Your task to perform on an android device: change the clock display to show seconds Image 0: 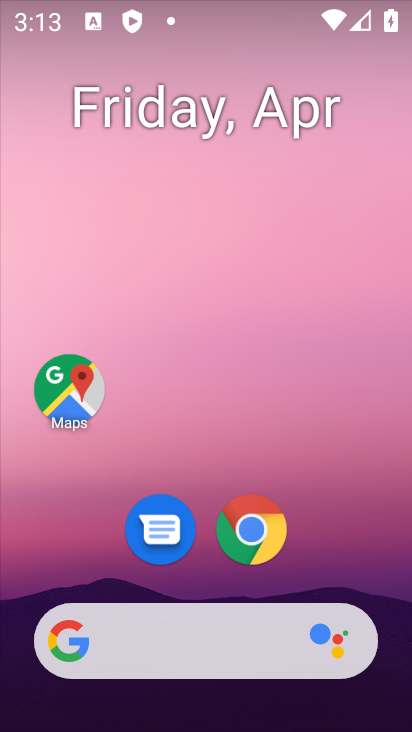
Step 0: drag from (246, 562) to (289, 125)
Your task to perform on an android device: change the clock display to show seconds Image 1: 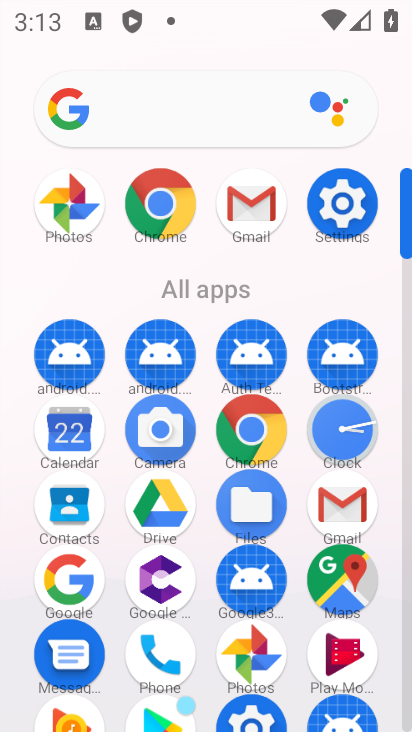
Step 1: click (348, 224)
Your task to perform on an android device: change the clock display to show seconds Image 2: 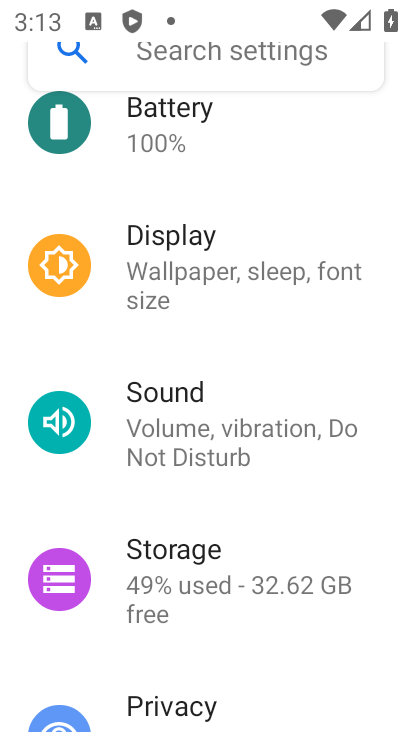
Step 2: press home button
Your task to perform on an android device: change the clock display to show seconds Image 3: 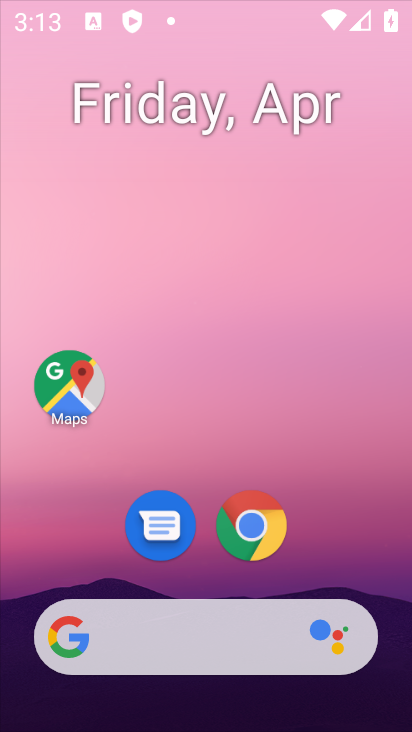
Step 3: press home button
Your task to perform on an android device: change the clock display to show seconds Image 4: 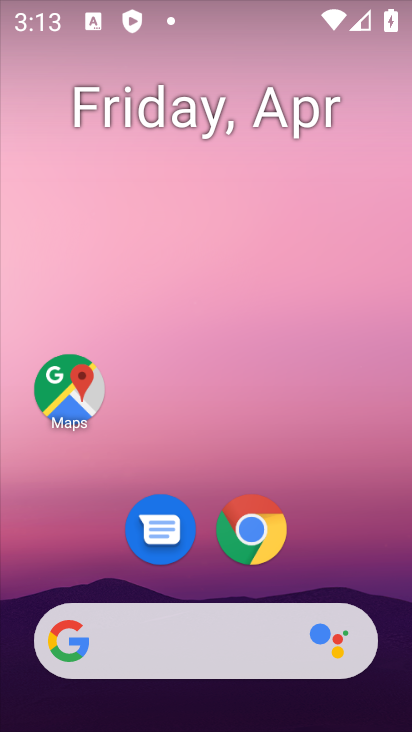
Step 4: drag from (303, 524) to (361, 207)
Your task to perform on an android device: change the clock display to show seconds Image 5: 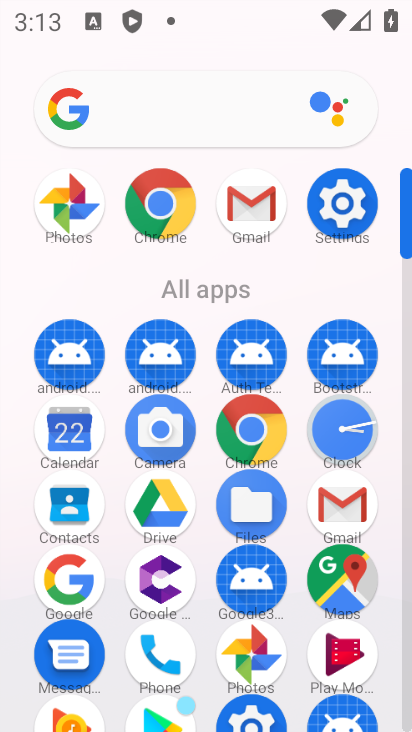
Step 5: click (358, 442)
Your task to perform on an android device: change the clock display to show seconds Image 6: 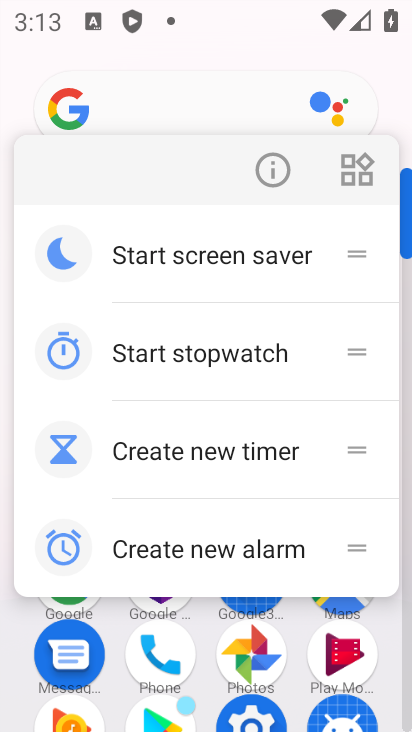
Step 6: click (386, 627)
Your task to perform on an android device: change the clock display to show seconds Image 7: 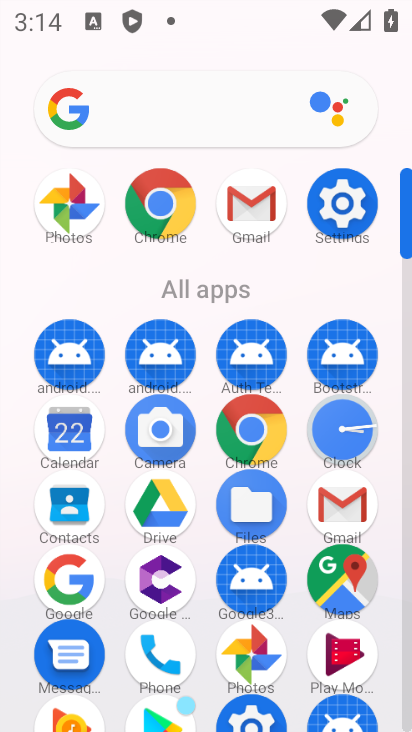
Step 7: click (347, 445)
Your task to perform on an android device: change the clock display to show seconds Image 8: 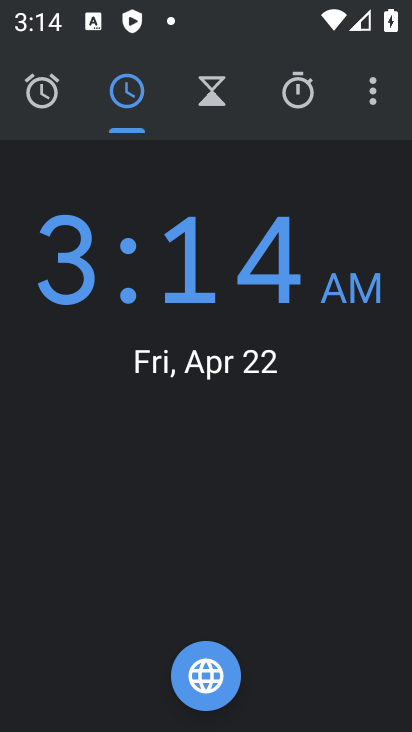
Step 8: click (376, 89)
Your task to perform on an android device: change the clock display to show seconds Image 9: 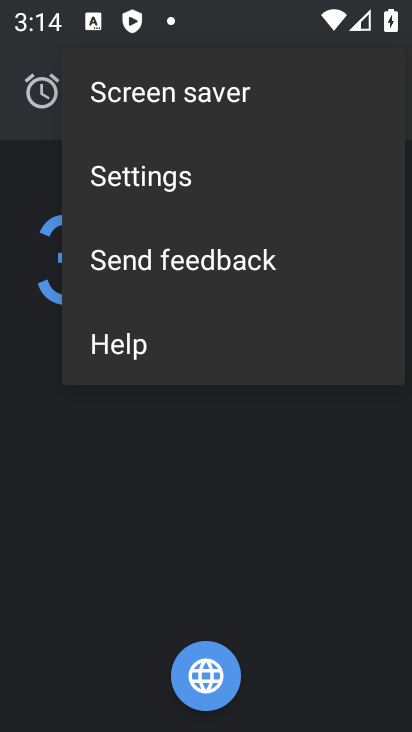
Step 9: click (211, 195)
Your task to perform on an android device: change the clock display to show seconds Image 10: 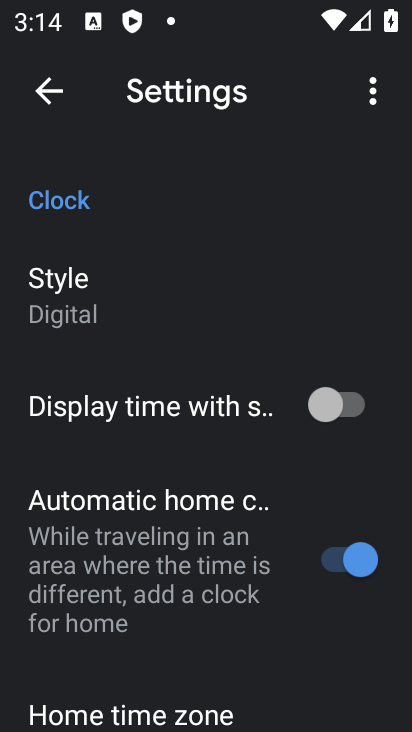
Step 10: drag from (232, 493) to (241, 438)
Your task to perform on an android device: change the clock display to show seconds Image 11: 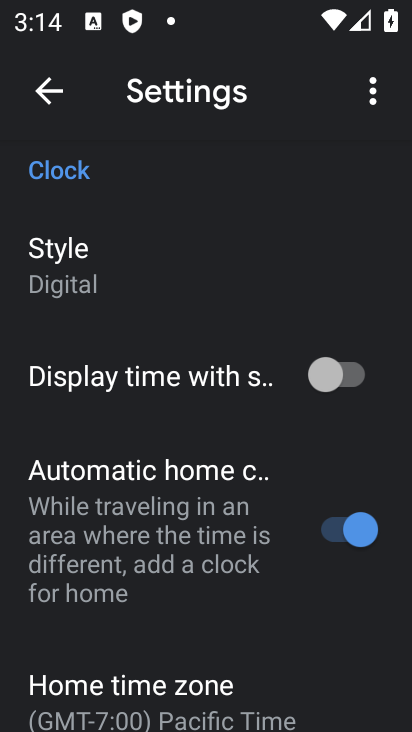
Step 11: click (330, 392)
Your task to perform on an android device: change the clock display to show seconds Image 12: 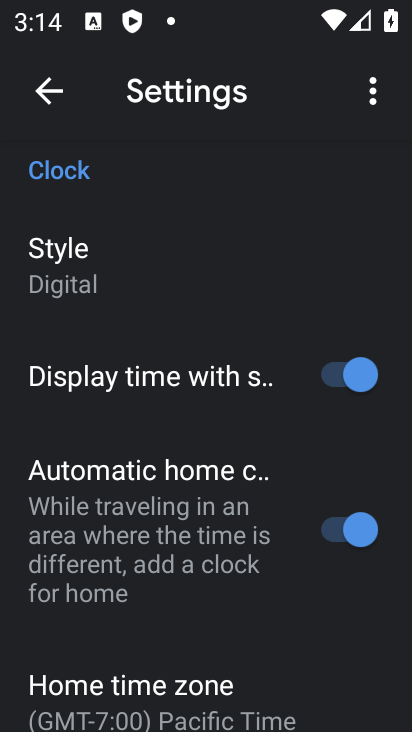
Step 12: task complete